Your task to perform on an android device: Go to CNN.com Image 0: 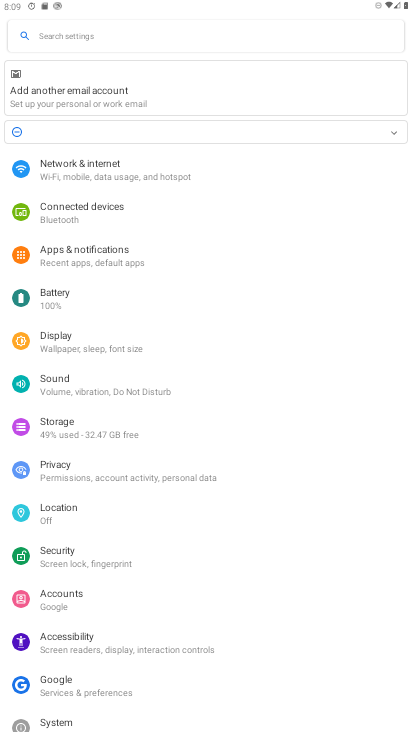
Step 0: press home button
Your task to perform on an android device: Go to CNN.com Image 1: 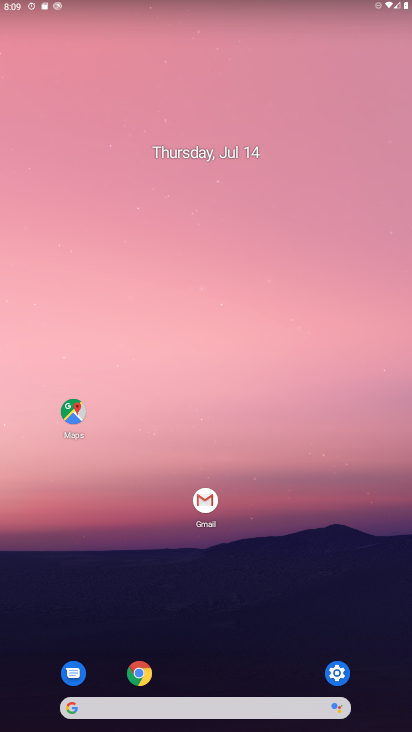
Step 1: click (139, 668)
Your task to perform on an android device: Go to CNN.com Image 2: 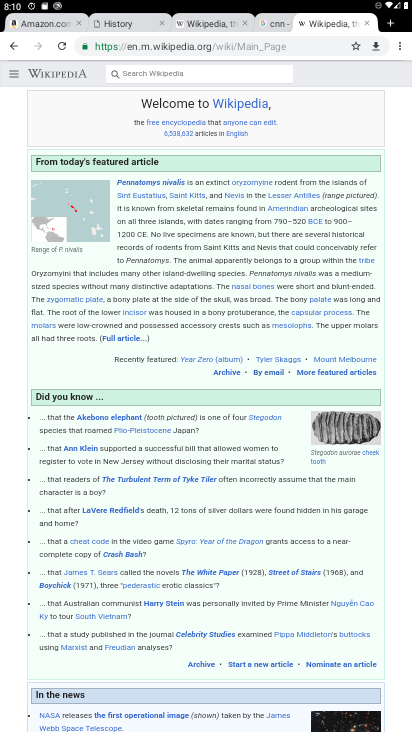
Step 2: click (392, 23)
Your task to perform on an android device: Go to CNN.com Image 3: 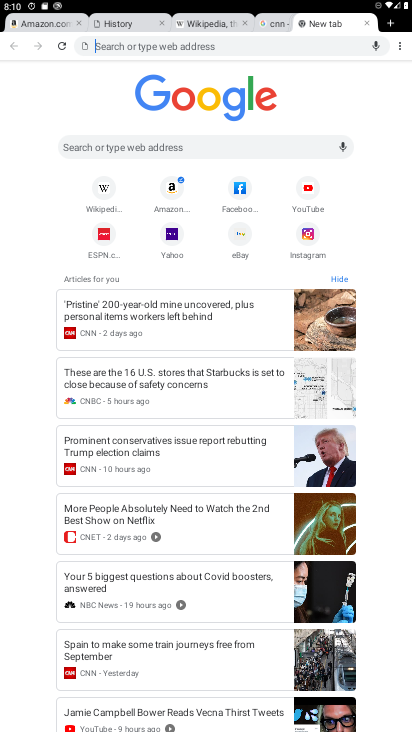
Step 3: click (132, 144)
Your task to perform on an android device: Go to CNN.com Image 4: 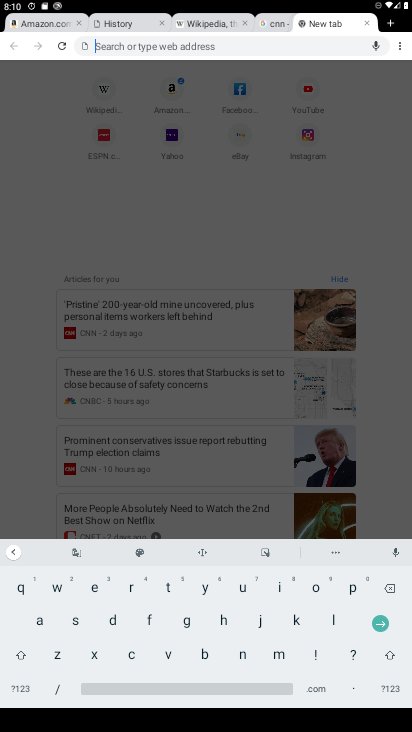
Step 4: click (135, 656)
Your task to perform on an android device: Go to CNN.com Image 5: 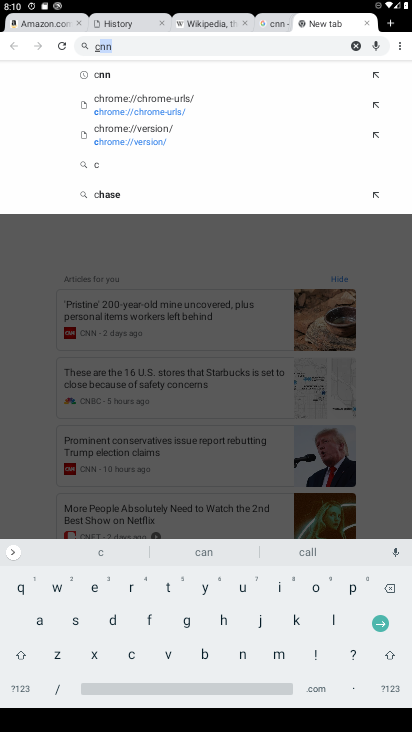
Step 5: click (246, 659)
Your task to perform on an android device: Go to CNN.com Image 6: 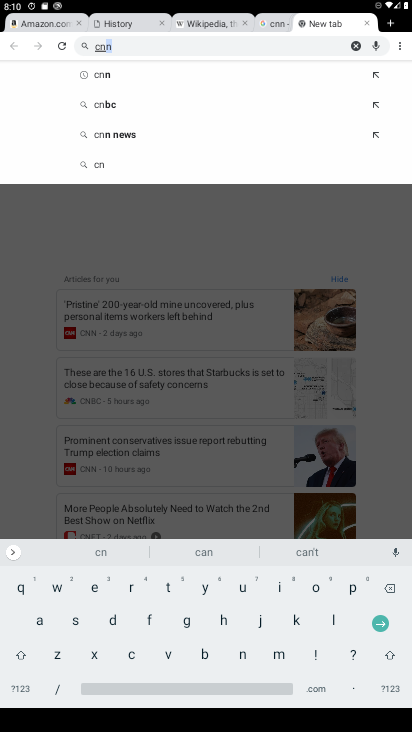
Step 6: click (246, 659)
Your task to perform on an android device: Go to CNN.com Image 7: 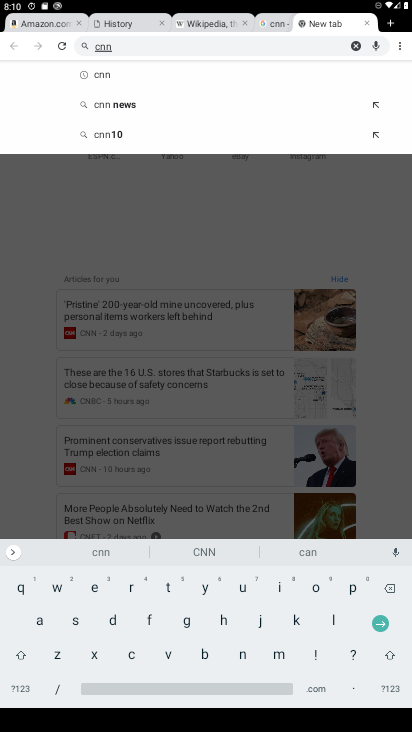
Step 7: click (377, 622)
Your task to perform on an android device: Go to CNN.com Image 8: 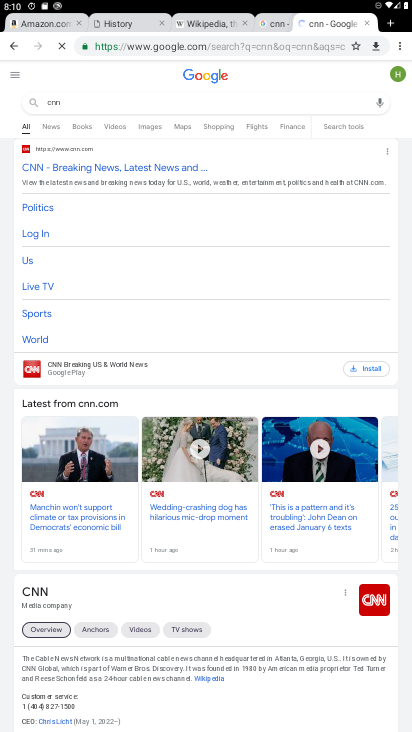
Step 8: click (93, 166)
Your task to perform on an android device: Go to CNN.com Image 9: 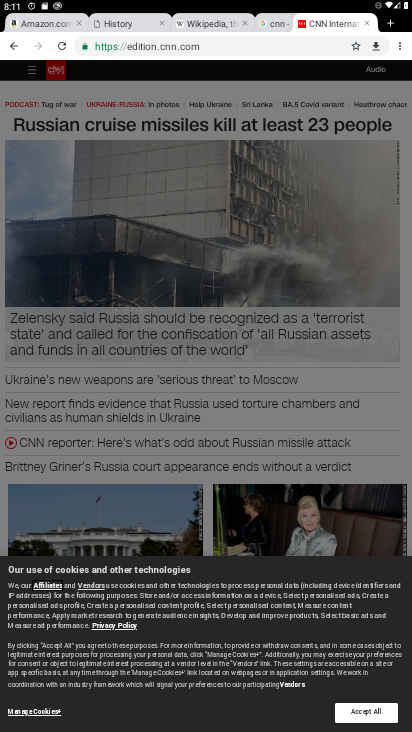
Step 9: task complete